Your task to perform on an android device: Search for Mexican restaurants on Maps Image 0: 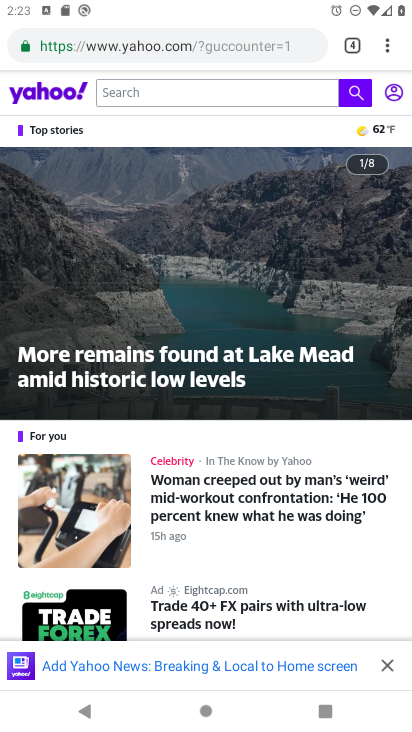
Step 0: press home button
Your task to perform on an android device: Search for Mexican restaurants on Maps Image 1: 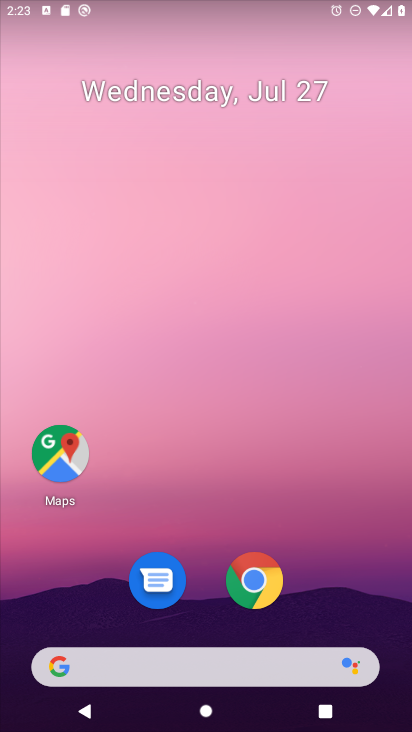
Step 1: click (54, 458)
Your task to perform on an android device: Search for Mexican restaurants on Maps Image 2: 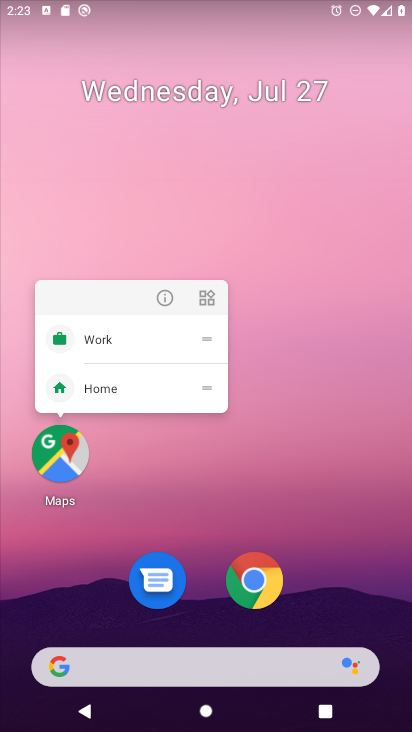
Step 2: click (54, 470)
Your task to perform on an android device: Search for Mexican restaurants on Maps Image 3: 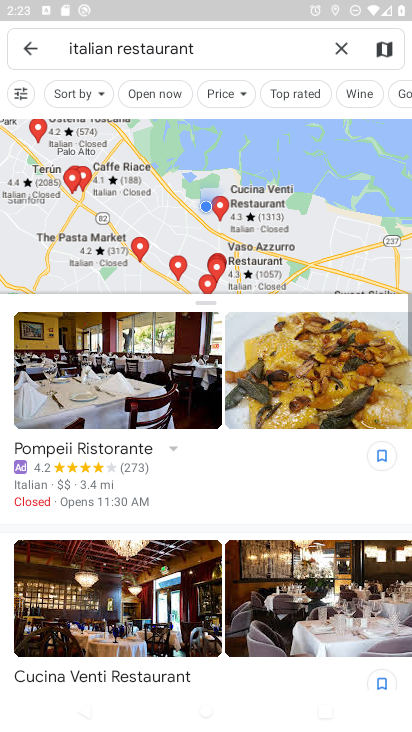
Step 3: click (342, 49)
Your task to perform on an android device: Search for Mexican restaurants on Maps Image 4: 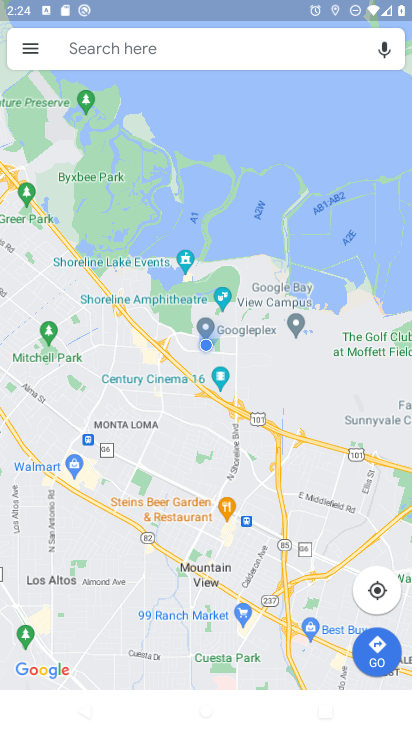
Step 4: click (172, 52)
Your task to perform on an android device: Search for Mexican restaurants on Maps Image 5: 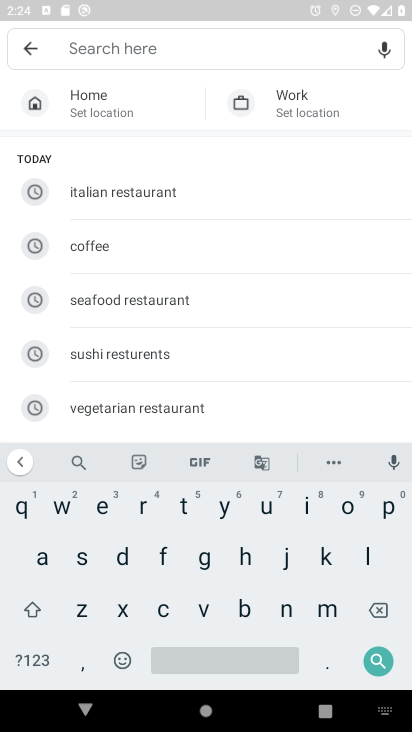
Step 5: click (323, 609)
Your task to perform on an android device: Search for Mexican restaurants on Maps Image 6: 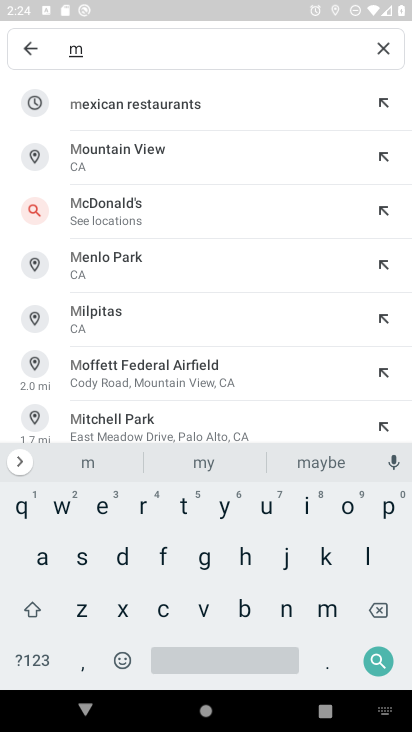
Step 6: click (171, 106)
Your task to perform on an android device: Search for Mexican restaurants on Maps Image 7: 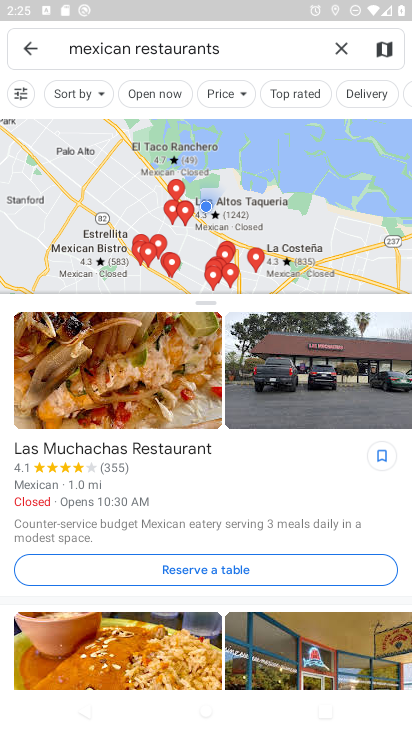
Step 7: task complete